Your task to perform on an android device: toggle show notifications on the lock screen Image 0: 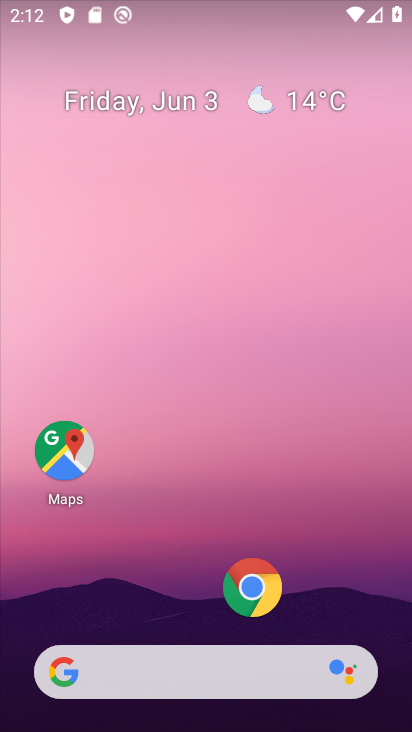
Step 0: drag from (154, 580) to (213, 49)
Your task to perform on an android device: toggle show notifications on the lock screen Image 1: 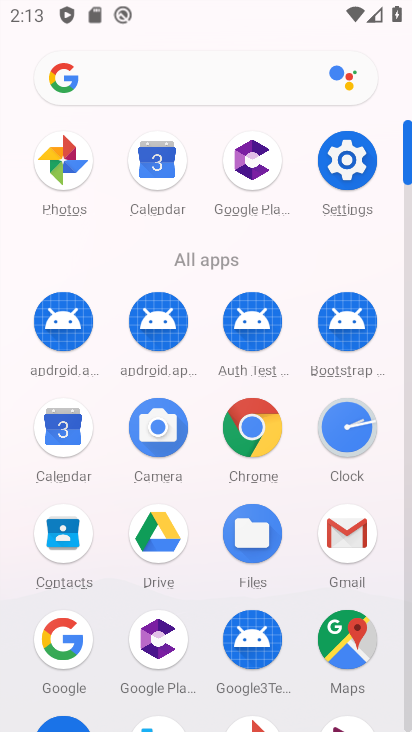
Step 1: click (344, 164)
Your task to perform on an android device: toggle show notifications on the lock screen Image 2: 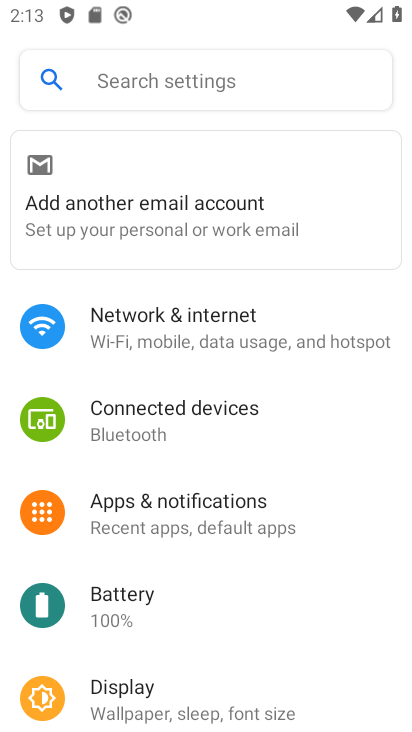
Step 2: click (165, 529)
Your task to perform on an android device: toggle show notifications on the lock screen Image 3: 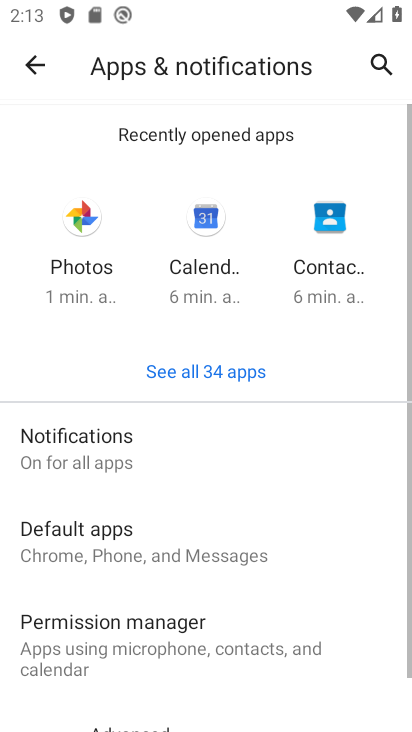
Step 3: click (122, 449)
Your task to perform on an android device: toggle show notifications on the lock screen Image 4: 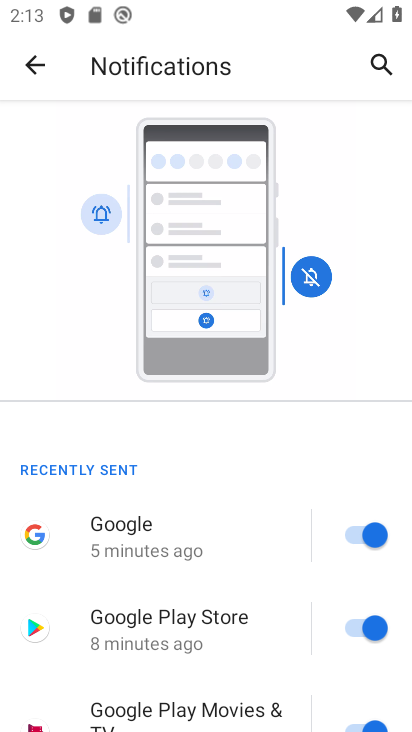
Step 4: drag from (247, 294) to (247, 78)
Your task to perform on an android device: toggle show notifications on the lock screen Image 5: 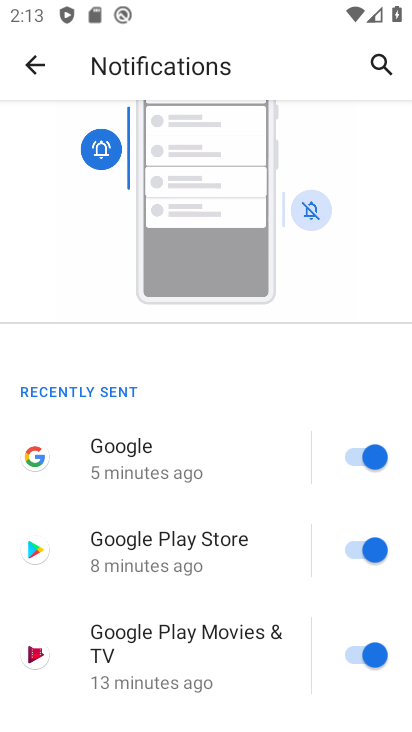
Step 5: drag from (155, 549) to (206, 84)
Your task to perform on an android device: toggle show notifications on the lock screen Image 6: 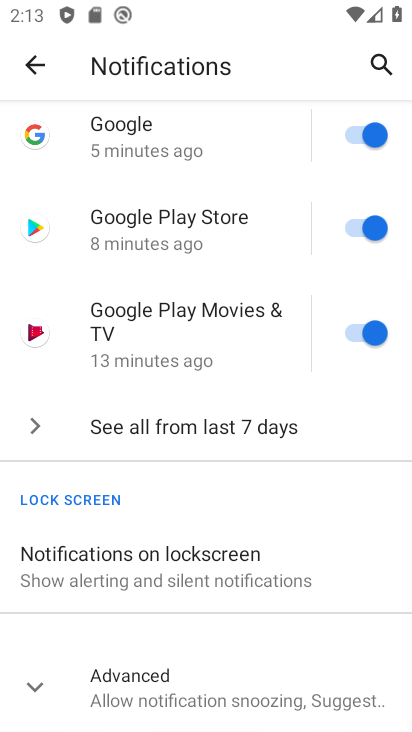
Step 6: click (187, 572)
Your task to perform on an android device: toggle show notifications on the lock screen Image 7: 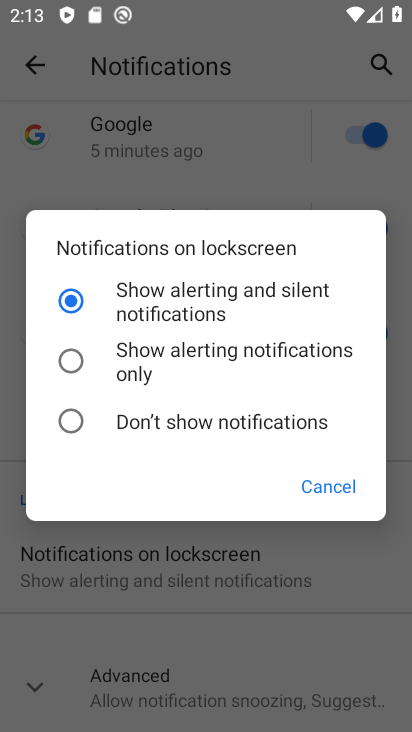
Step 7: click (71, 289)
Your task to perform on an android device: toggle show notifications on the lock screen Image 8: 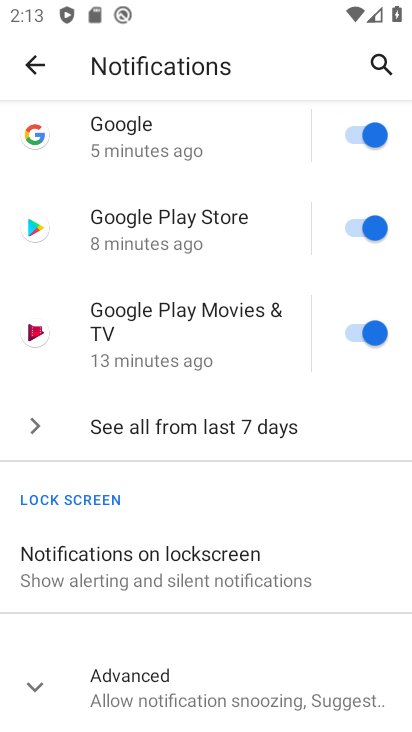
Step 8: task complete